Your task to perform on an android device: turn notification dots off Image 0: 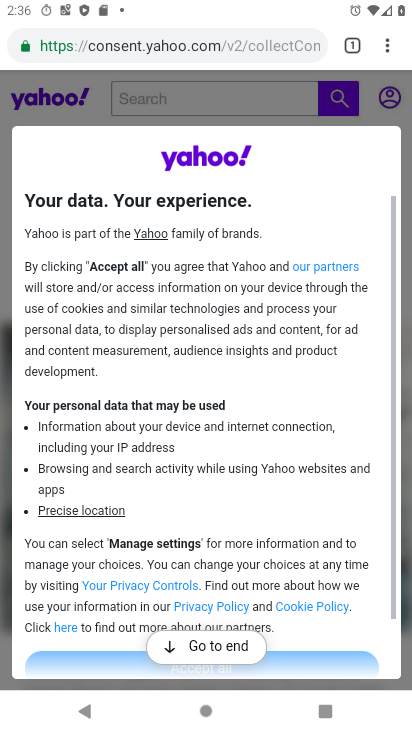
Step 0: press home button
Your task to perform on an android device: turn notification dots off Image 1: 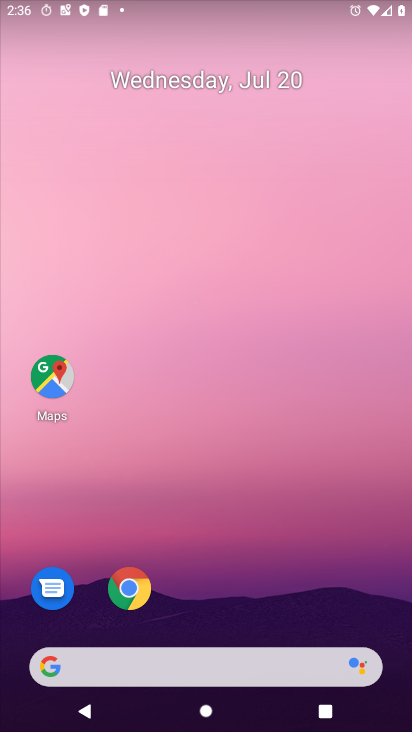
Step 1: drag from (348, 597) to (395, 0)
Your task to perform on an android device: turn notification dots off Image 2: 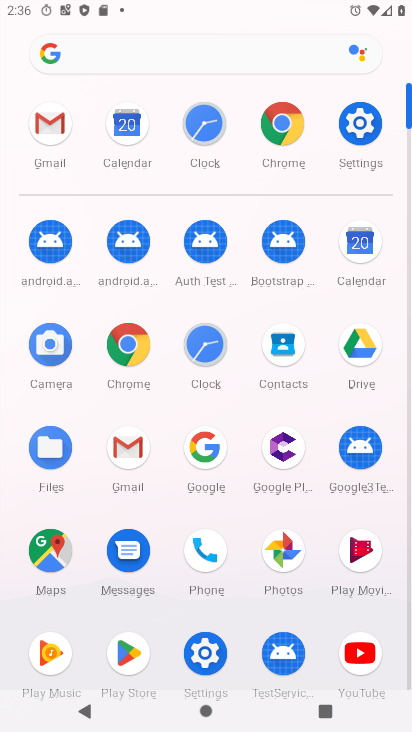
Step 2: click (352, 128)
Your task to perform on an android device: turn notification dots off Image 3: 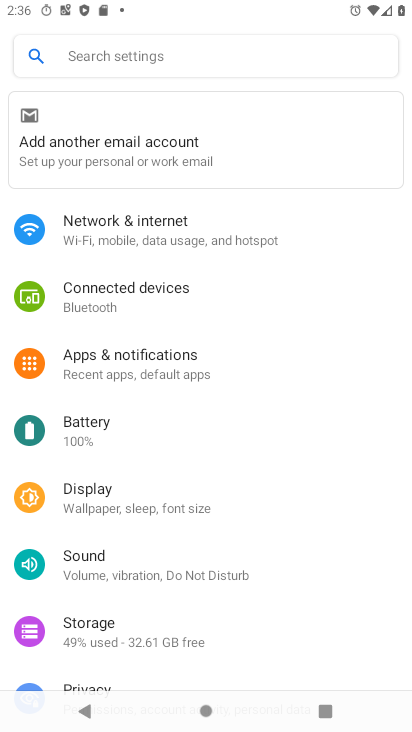
Step 3: click (167, 365)
Your task to perform on an android device: turn notification dots off Image 4: 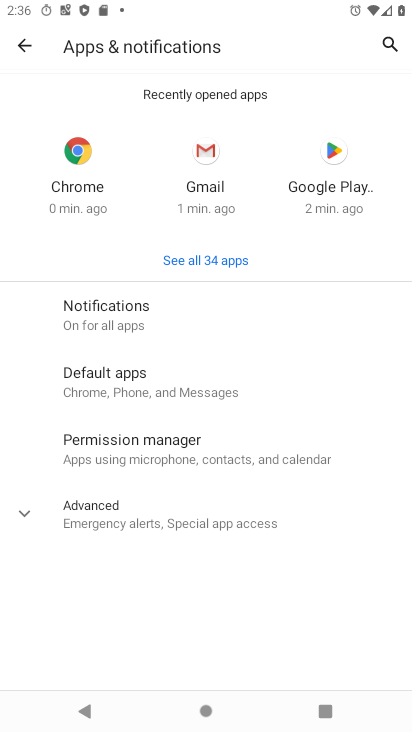
Step 4: click (126, 519)
Your task to perform on an android device: turn notification dots off Image 5: 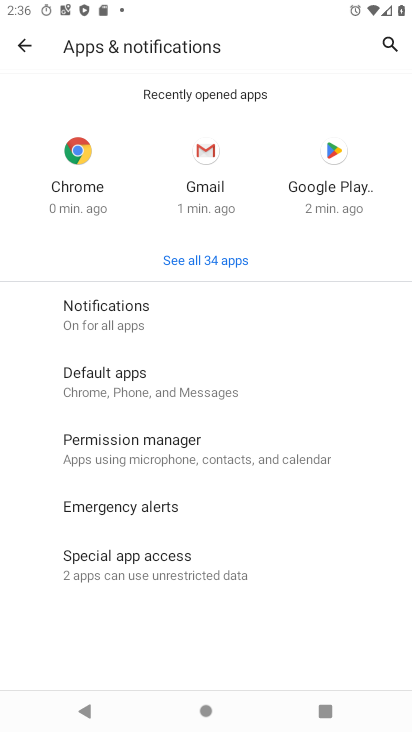
Step 5: click (99, 302)
Your task to perform on an android device: turn notification dots off Image 6: 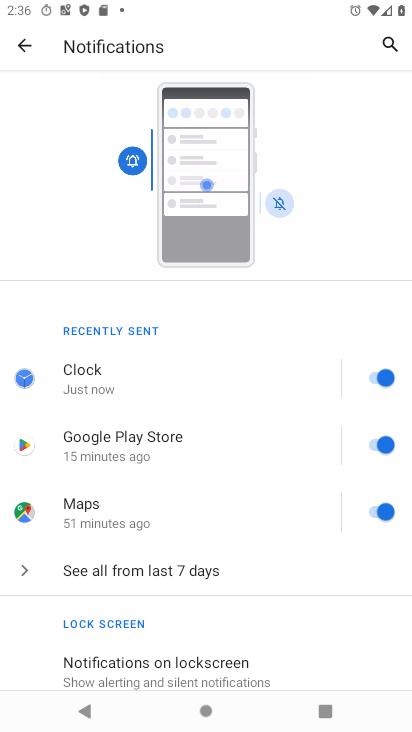
Step 6: drag from (120, 516) to (147, 155)
Your task to perform on an android device: turn notification dots off Image 7: 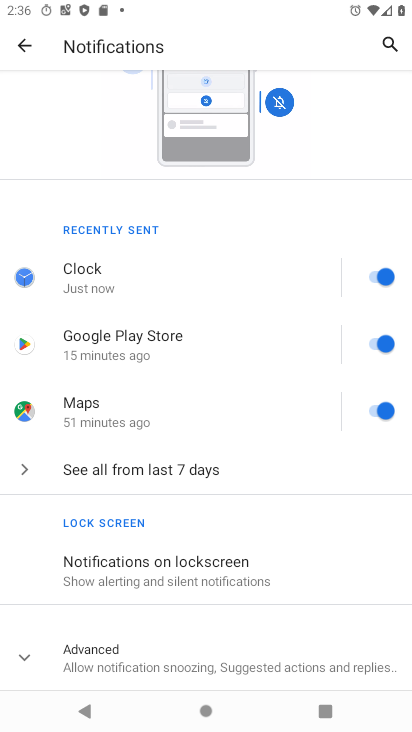
Step 7: click (120, 657)
Your task to perform on an android device: turn notification dots off Image 8: 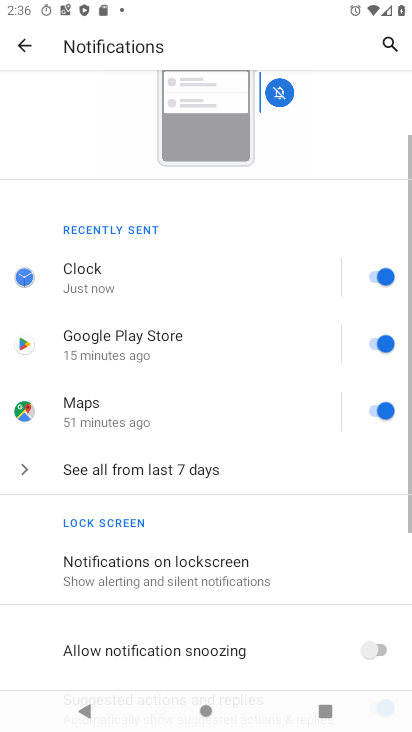
Step 8: task complete